Your task to perform on an android device: Open settings Image 0: 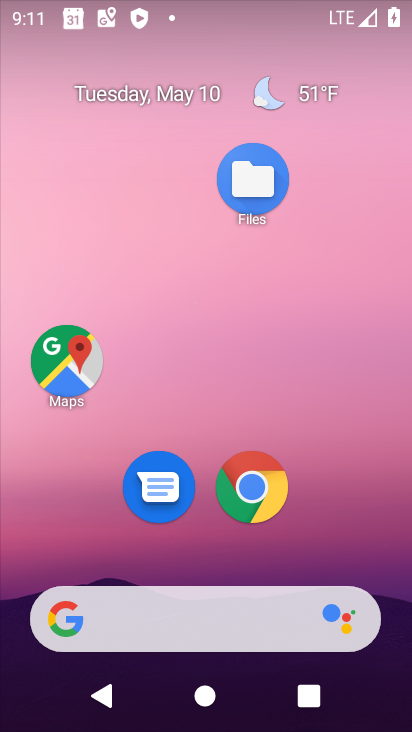
Step 0: press home button
Your task to perform on an android device: Open settings Image 1: 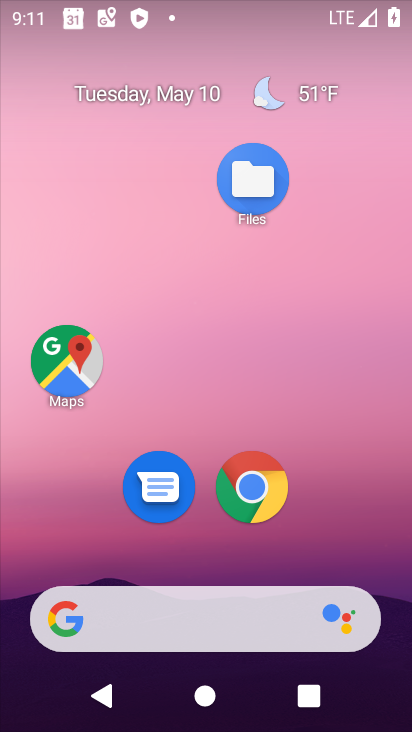
Step 1: drag from (197, 535) to (184, 37)
Your task to perform on an android device: Open settings Image 2: 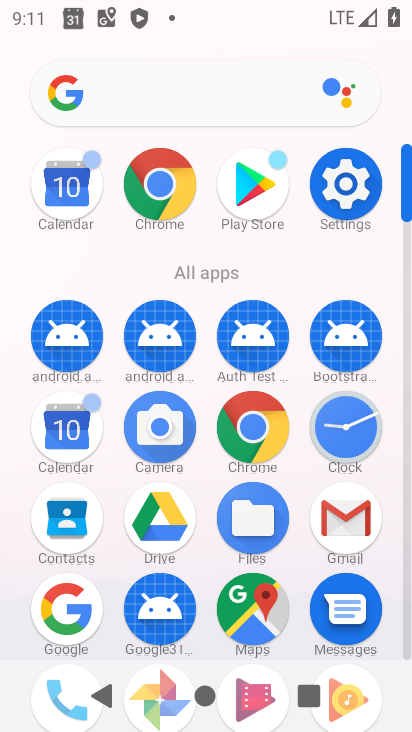
Step 2: click (346, 184)
Your task to perform on an android device: Open settings Image 3: 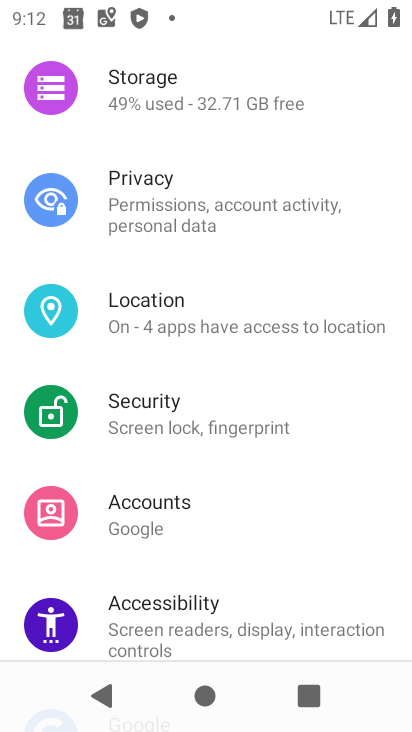
Step 3: task complete